Your task to perform on an android device: How do I get to the nearest Starbucks? Image 0: 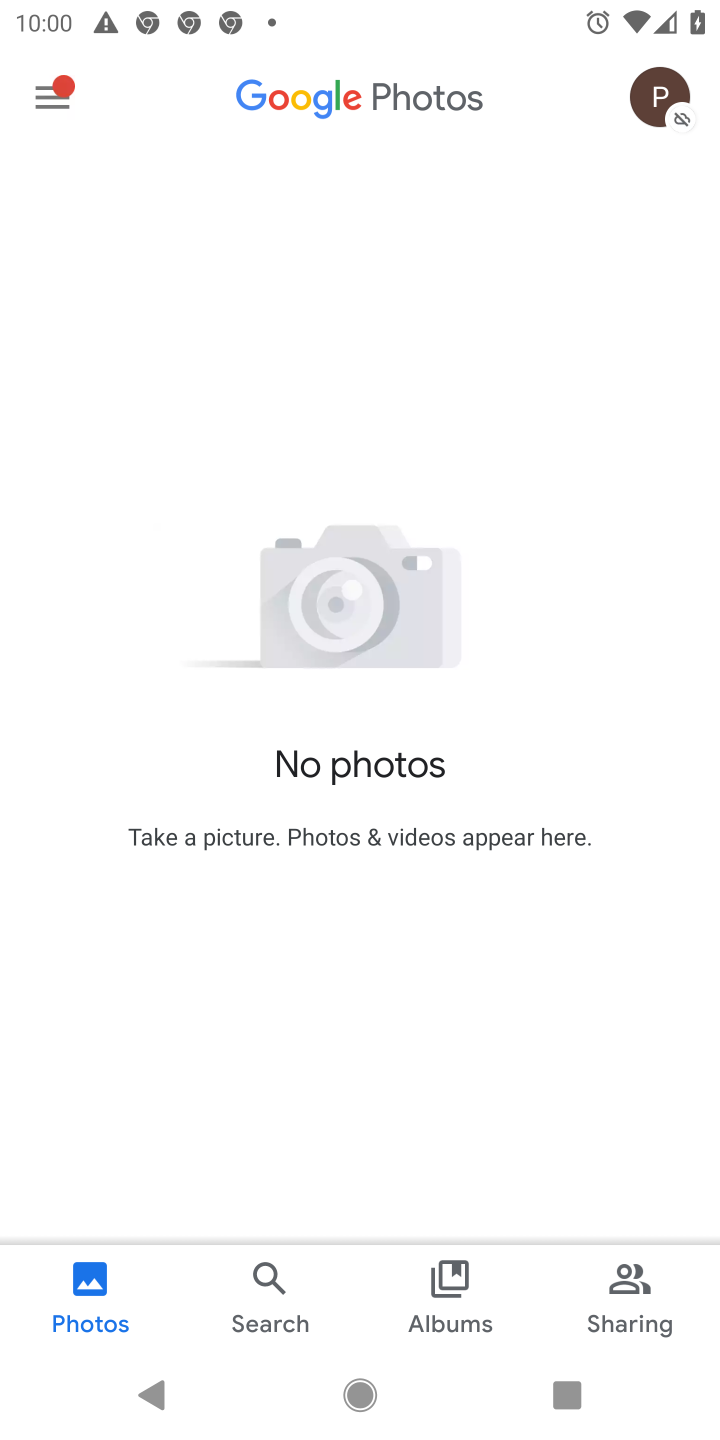
Step 0: press home button
Your task to perform on an android device: How do I get to the nearest Starbucks? Image 1: 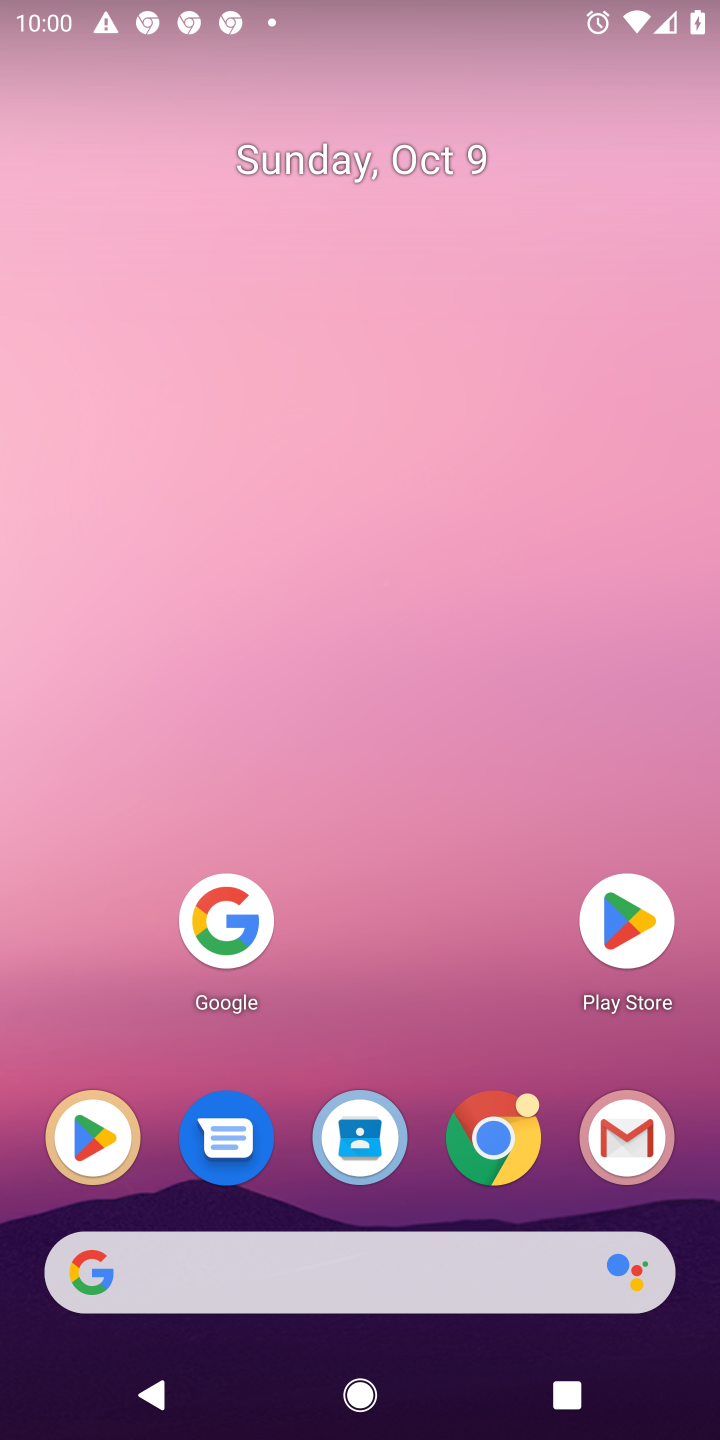
Step 1: click (233, 903)
Your task to perform on an android device: How do I get to the nearest Starbucks? Image 2: 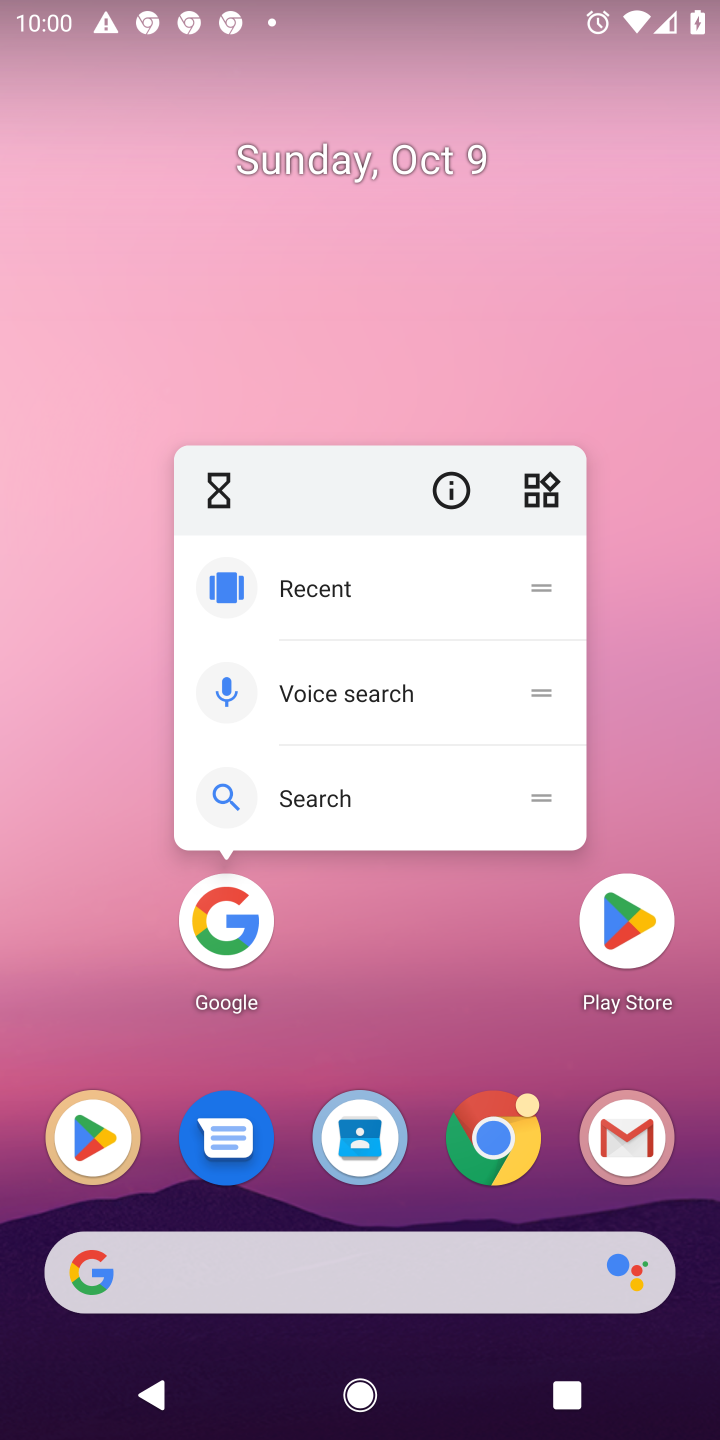
Step 2: click (233, 903)
Your task to perform on an android device: How do I get to the nearest Starbucks? Image 3: 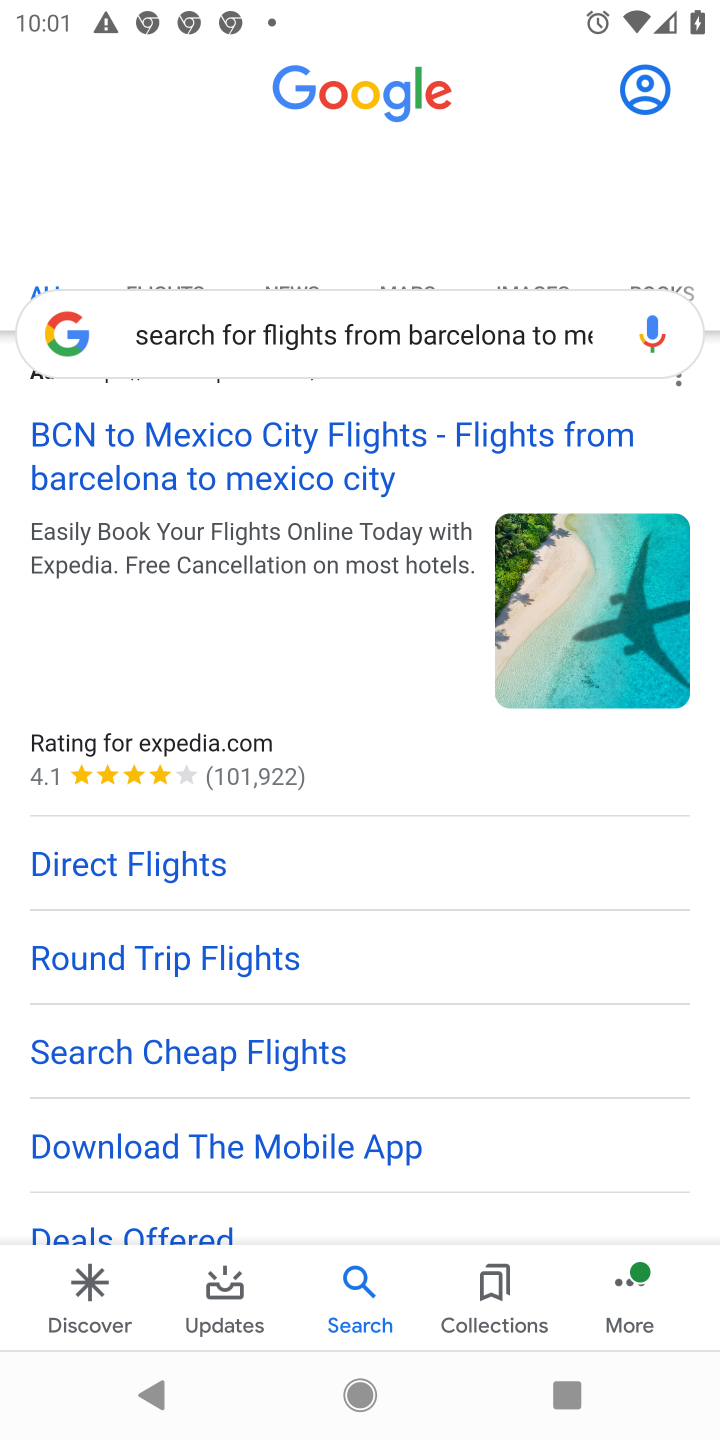
Step 3: click (364, 309)
Your task to perform on an android device: How do I get to the nearest Starbucks? Image 4: 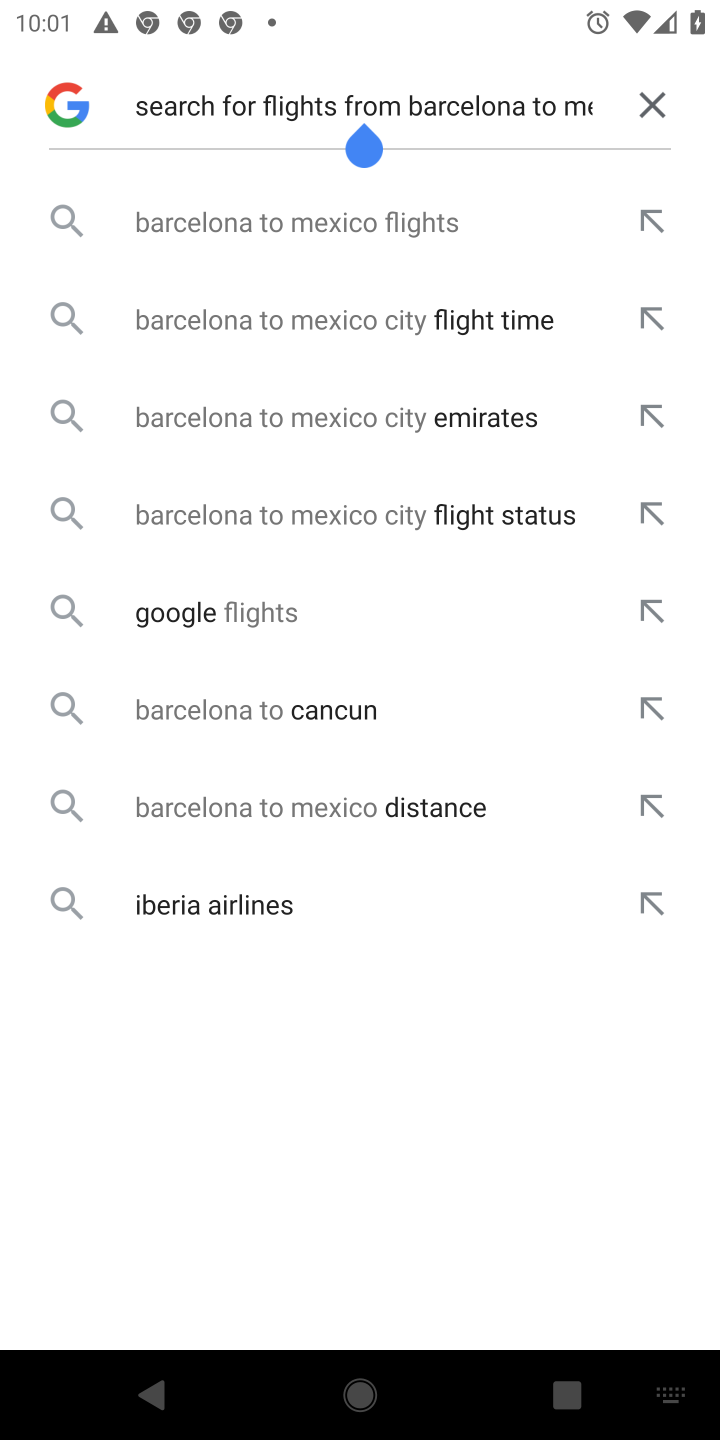
Step 4: click (654, 121)
Your task to perform on an android device: How do I get to the nearest Starbucks? Image 5: 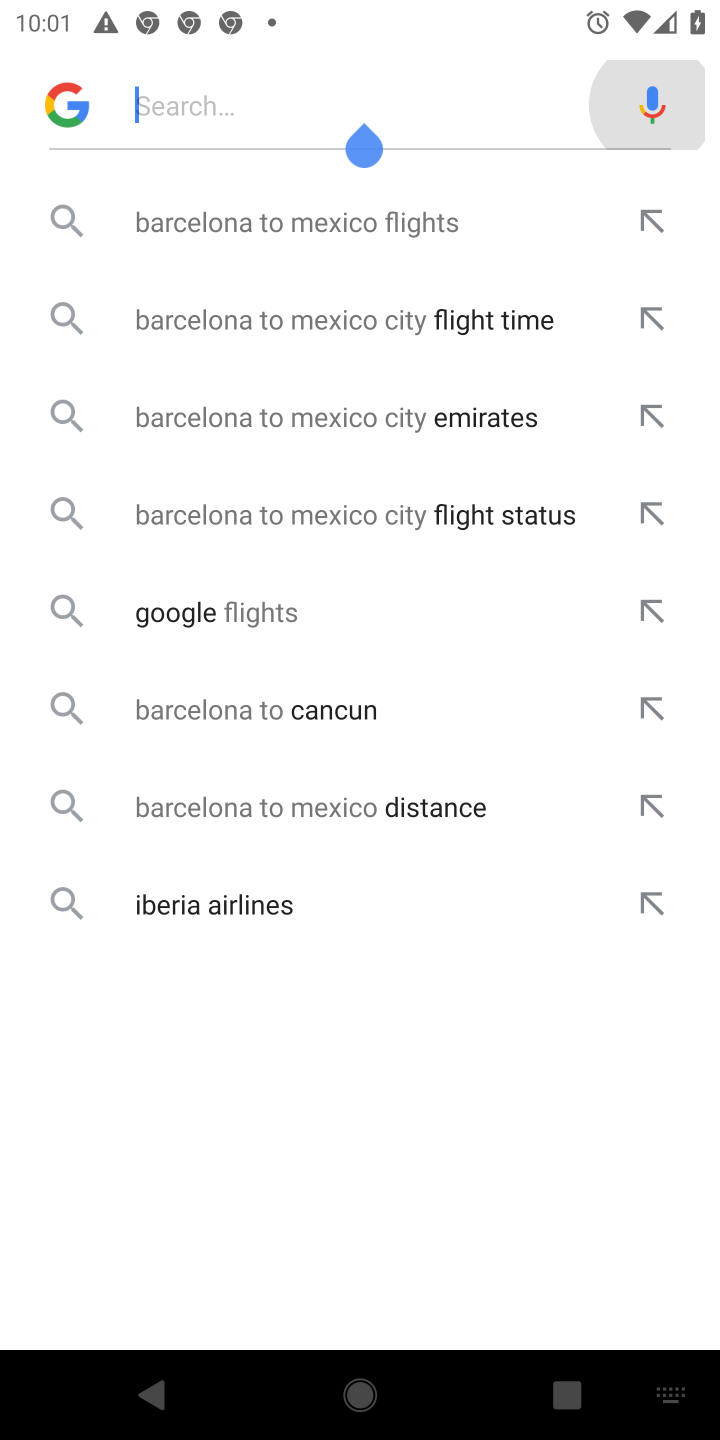
Step 5: click (651, 118)
Your task to perform on an android device: How do I get to the nearest Starbucks? Image 6: 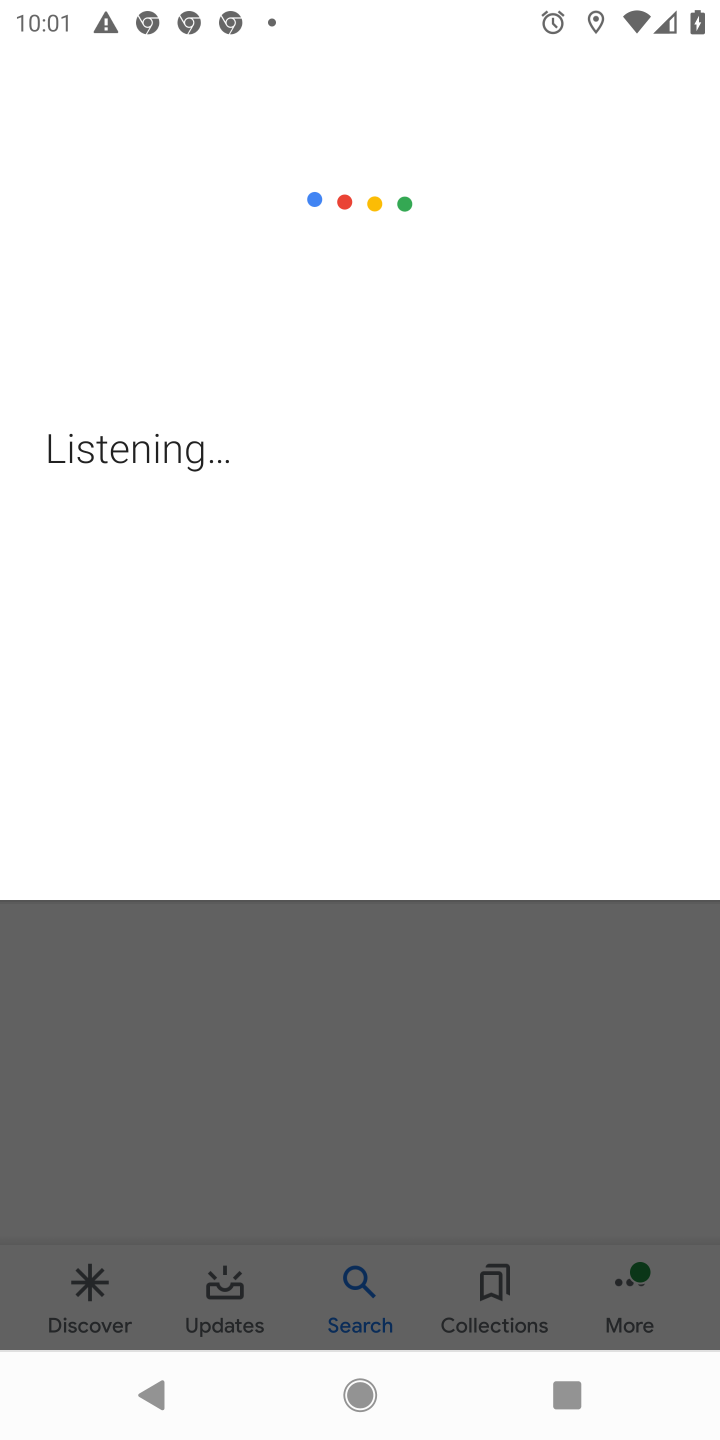
Step 6: click (415, 1019)
Your task to perform on an android device: How do I get to the nearest Starbucks? Image 7: 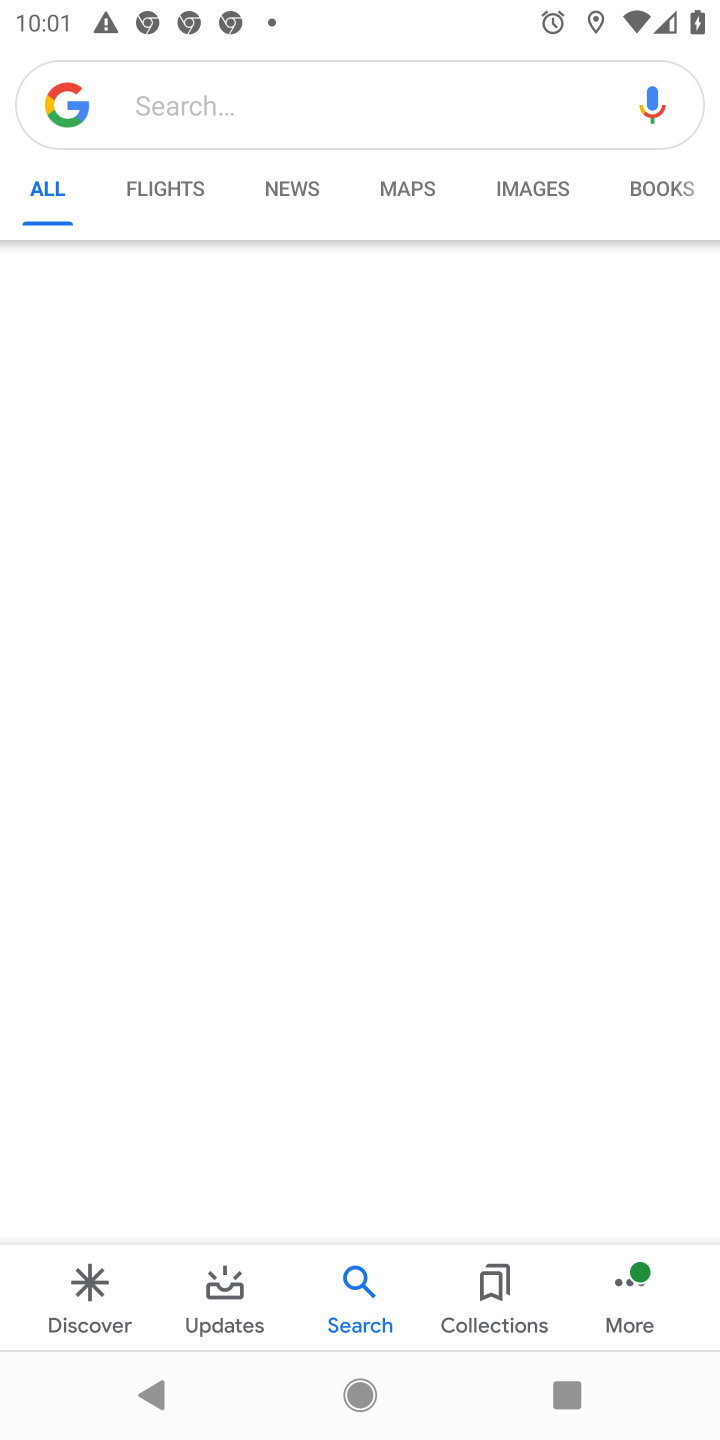
Step 7: press back button
Your task to perform on an android device: How do I get to the nearest Starbucks? Image 8: 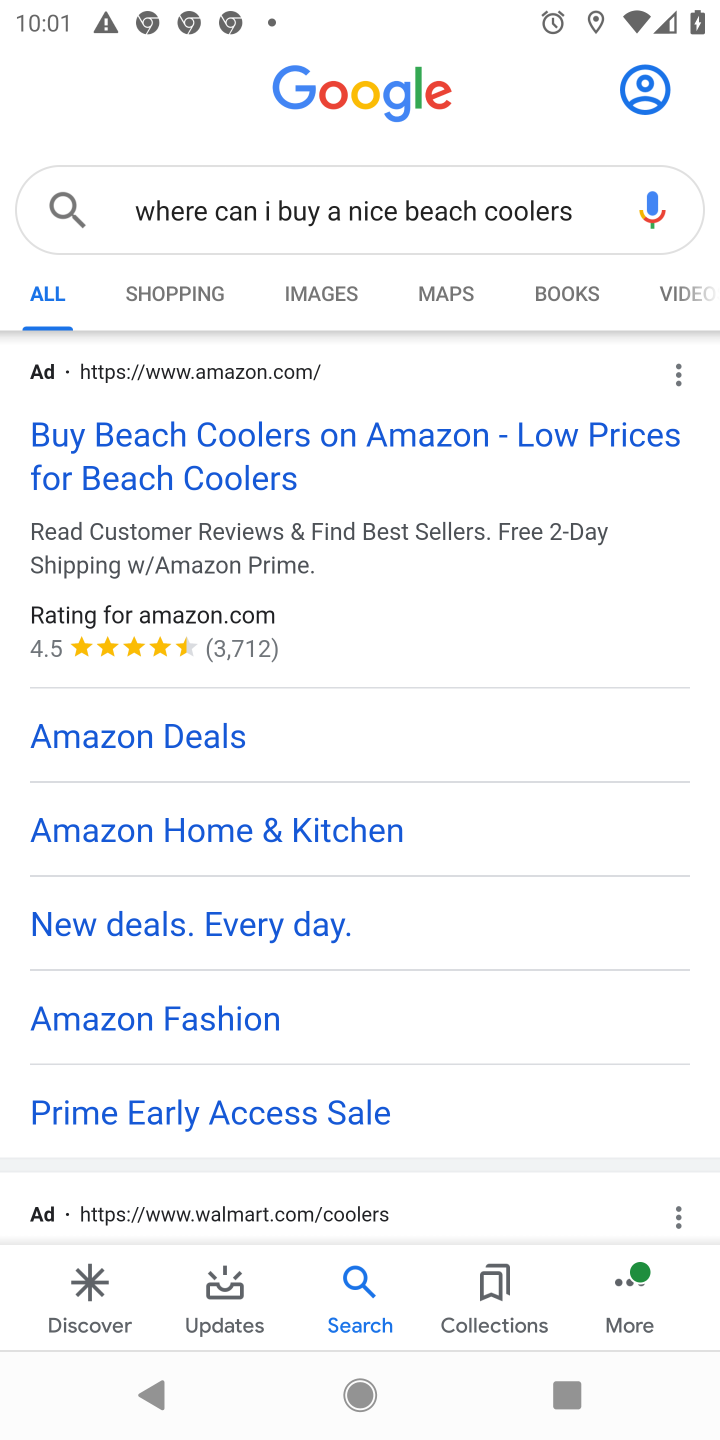
Step 8: click (555, 192)
Your task to perform on an android device: How do I get to the nearest Starbucks? Image 9: 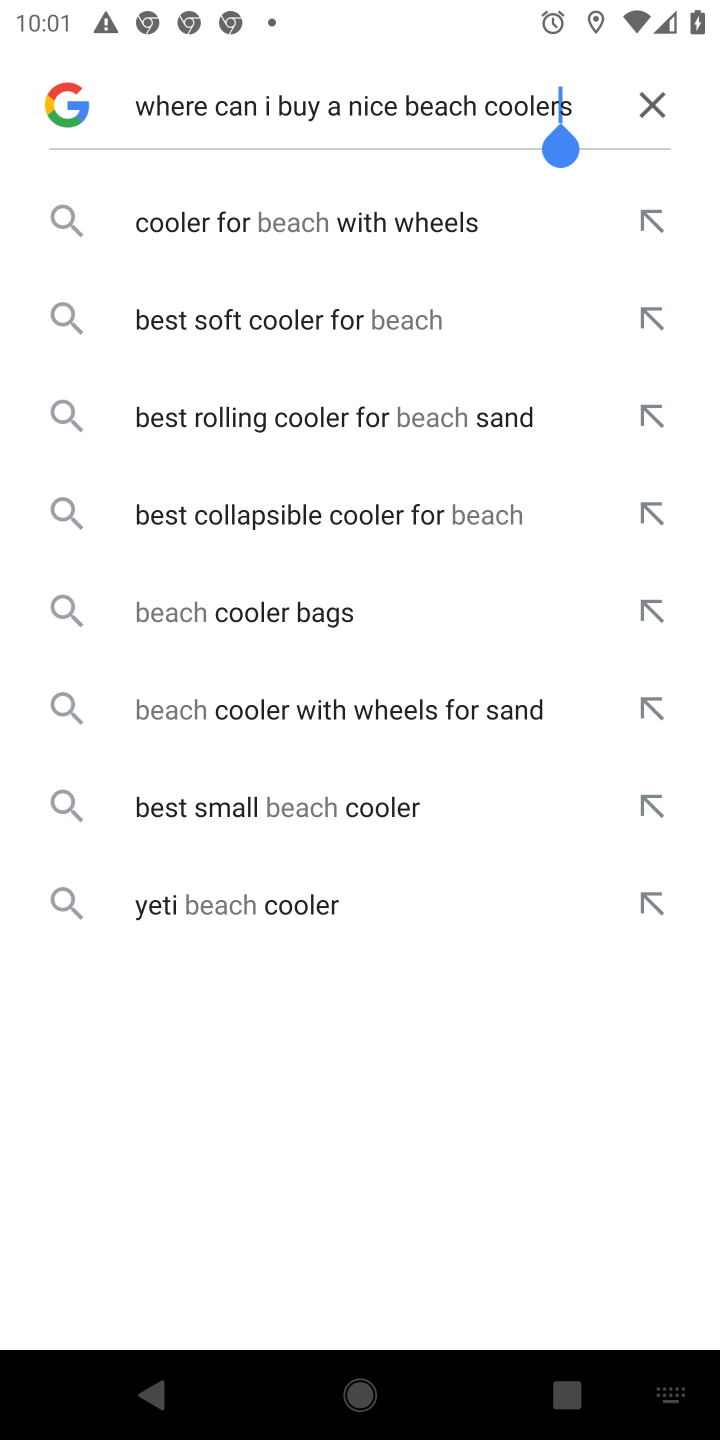
Step 9: click (651, 91)
Your task to perform on an android device: How do I get to the nearest Starbucks? Image 10: 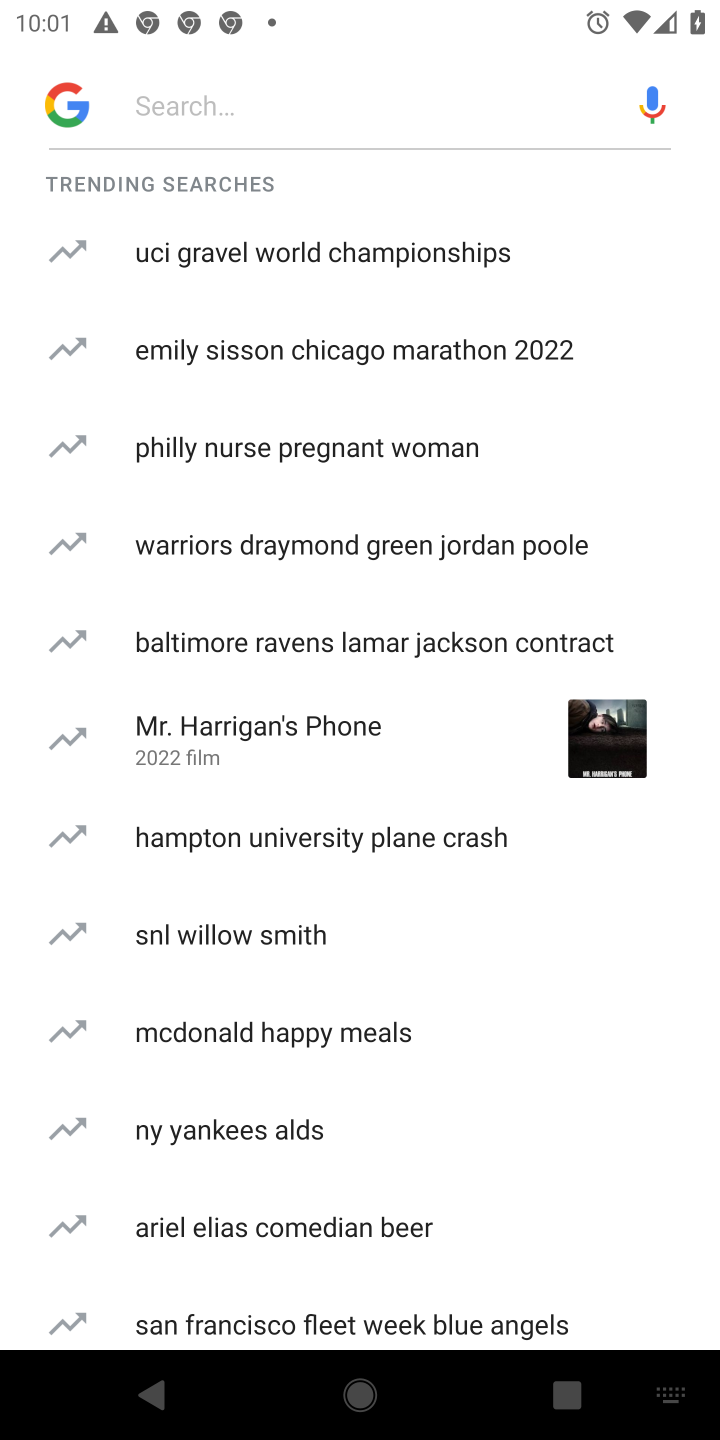
Step 10: click (283, 114)
Your task to perform on an android device: How do I get to the nearest Starbucks? Image 11: 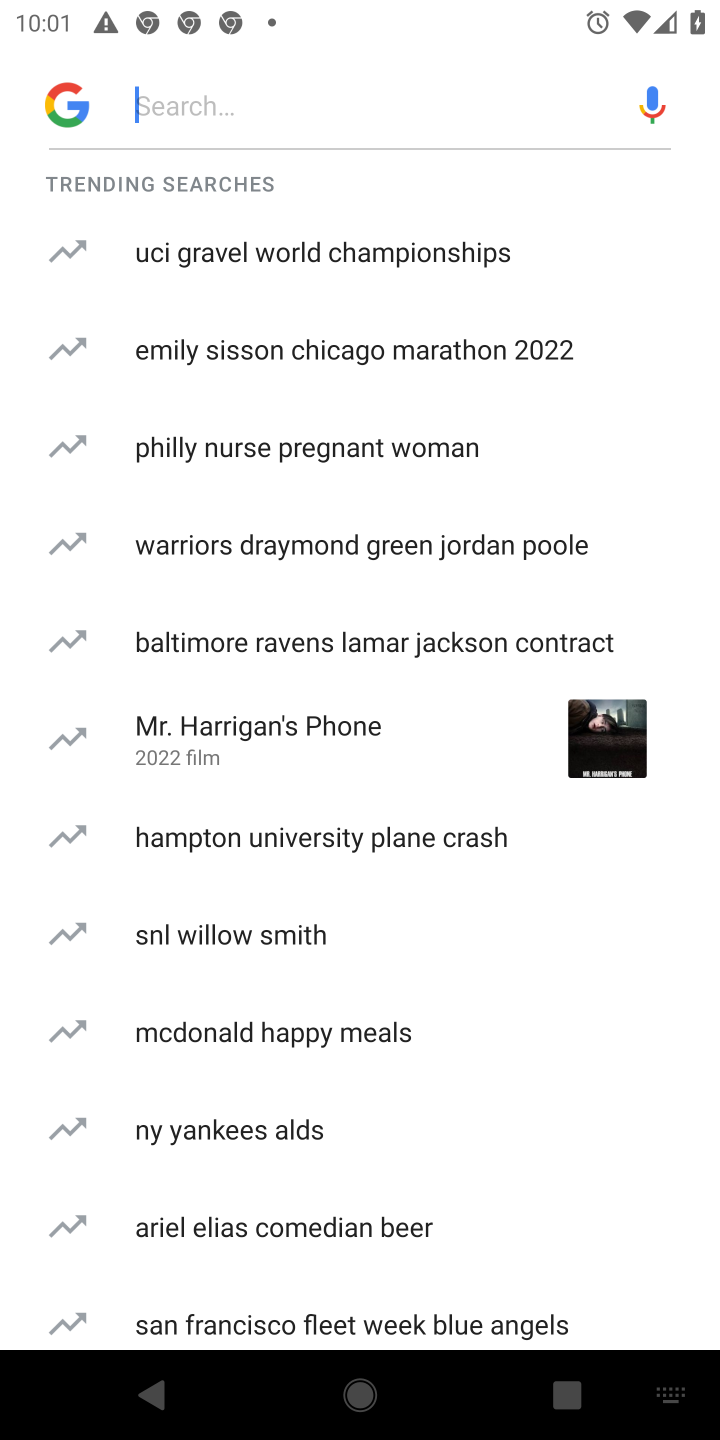
Step 11: type "How do I get to the nearest Starbucks? "
Your task to perform on an android device: How do I get to the nearest Starbucks? Image 12: 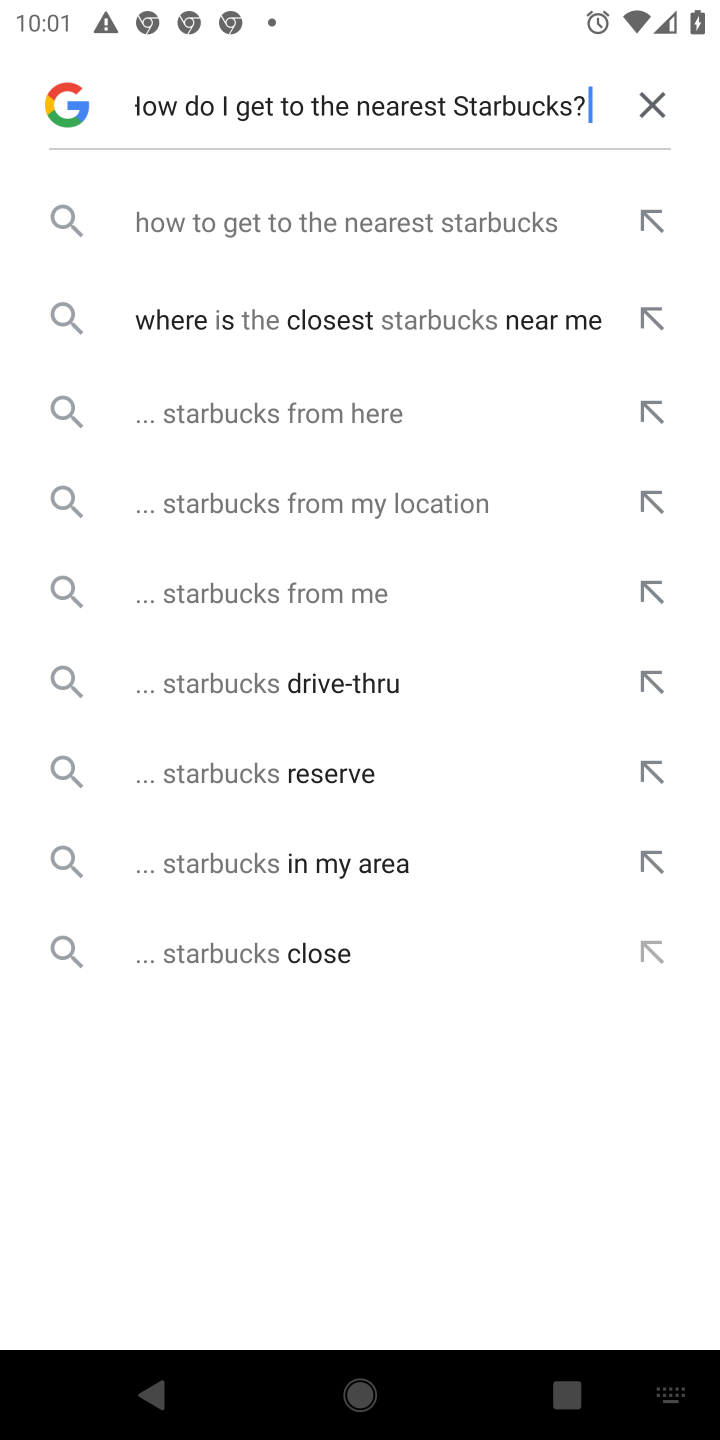
Step 12: click (284, 223)
Your task to perform on an android device: How do I get to the nearest Starbucks? Image 13: 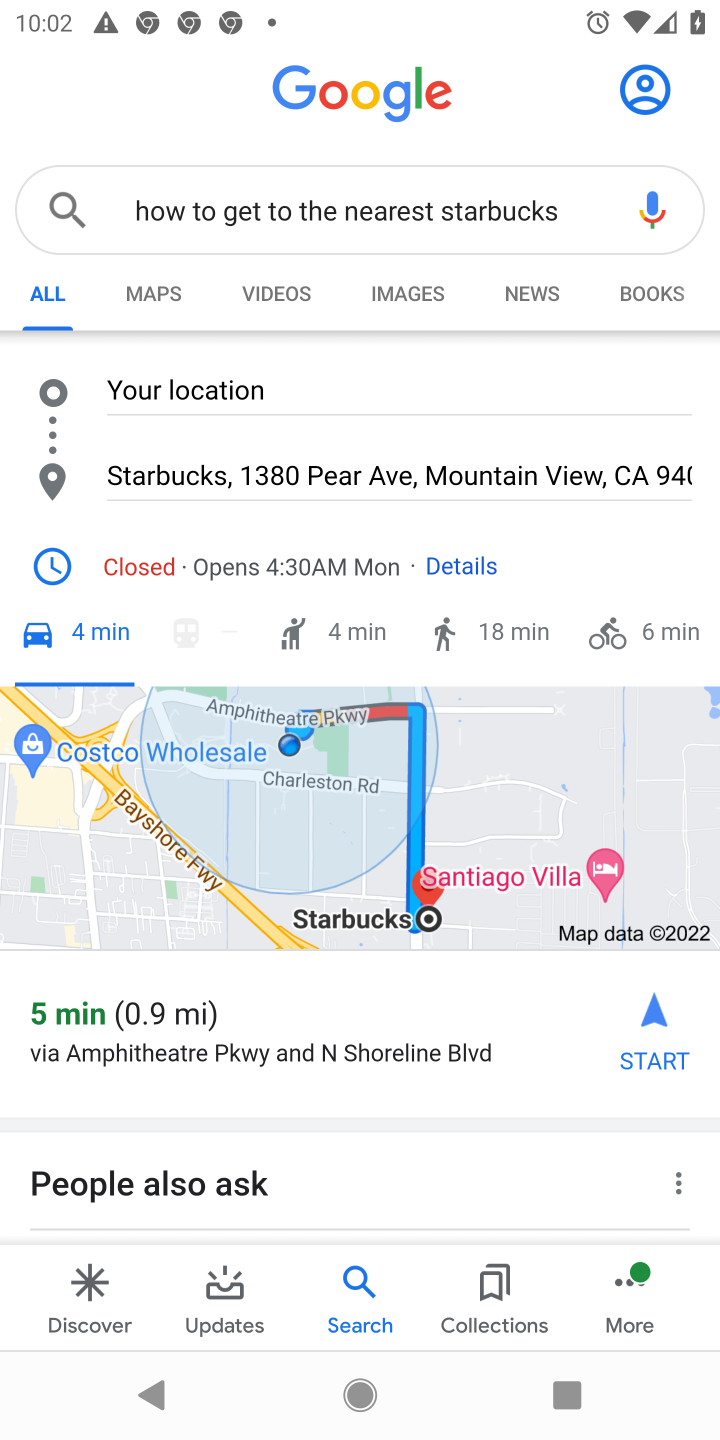
Step 13: task complete